Your task to perform on an android device: Show me the alarms in the clock app Image 0: 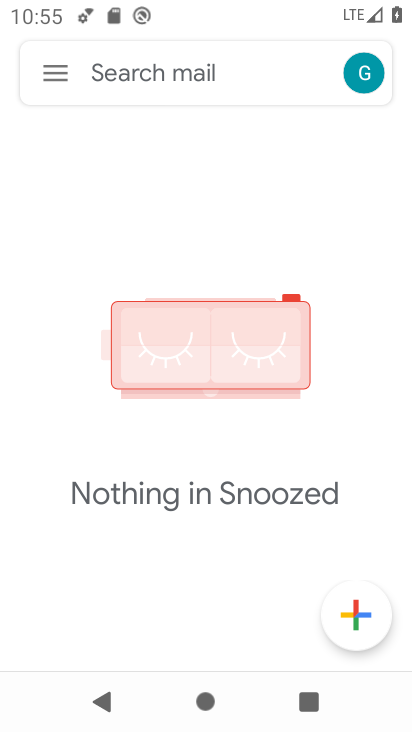
Step 0: press home button
Your task to perform on an android device: Show me the alarms in the clock app Image 1: 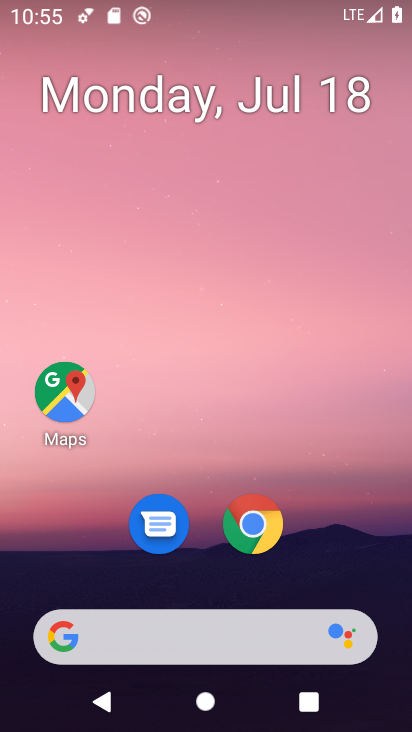
Step 1: drag from (320, 523) to (287, 24)
Your task to perform on an android device: Show me the alarms in the clock app Image 2: 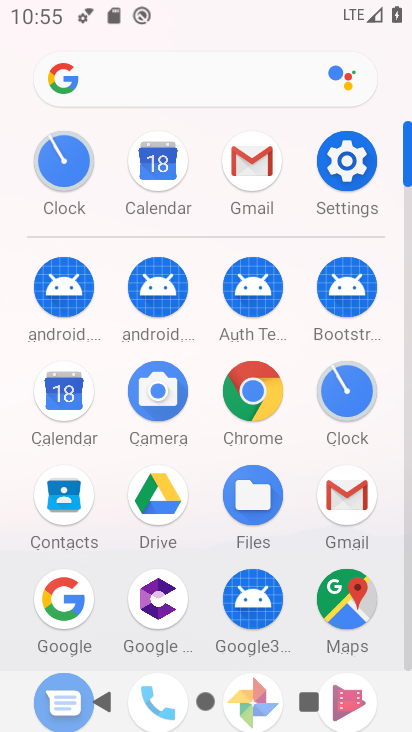
Step 2: click (64, 145)
Your task to perform on an android device: Show me the alarms in the clock app Image 3: 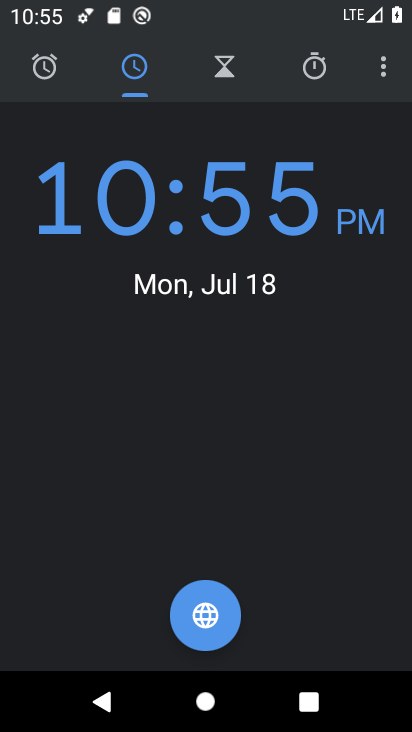
Step 3: click (51, 71)
Your task to perform on an android device: Show me the alarms in the clock app Image 4: 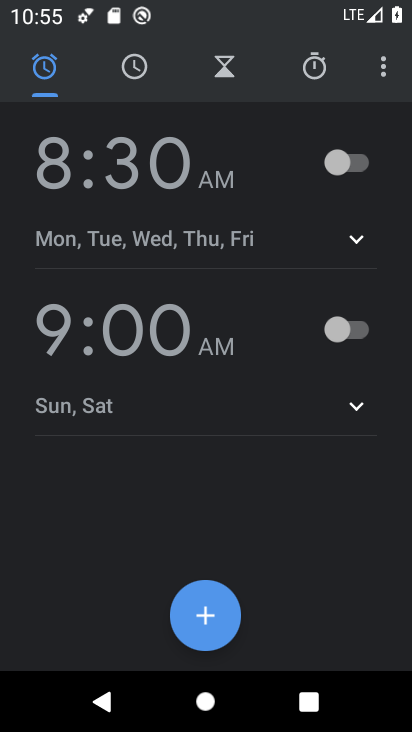
Step 4: task complete